Your task to perform on an android device: refresh tabs in the chrome app Image 0: 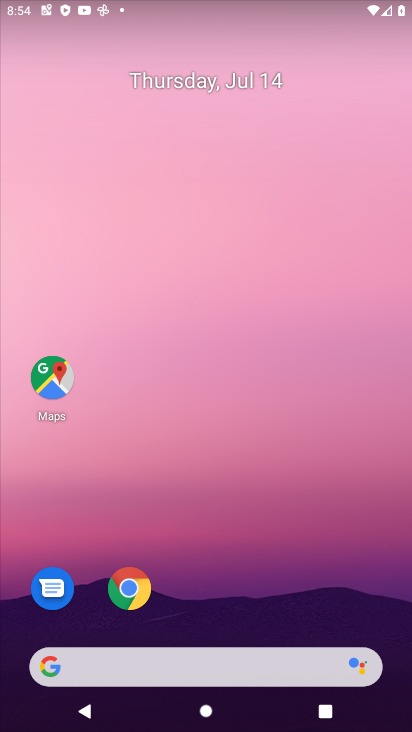
Step 0: click (130, 590)
Your task to perform on an android device: refresh tabs in the chrome app Image 1: 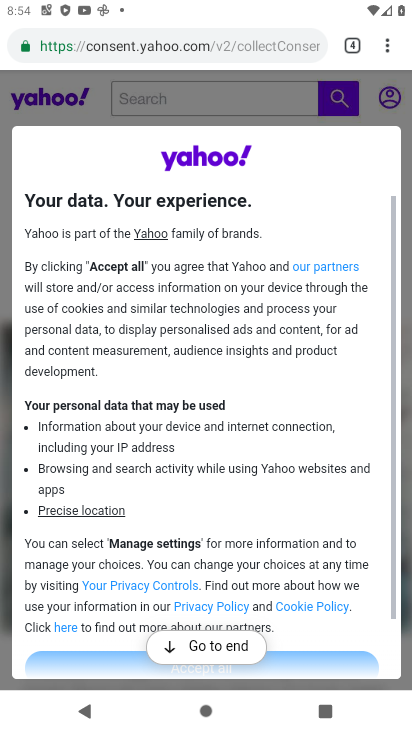
Step 1: click (380, 53)
Your task to perform on an android device: refresh tabs in the chrome app Image 2: 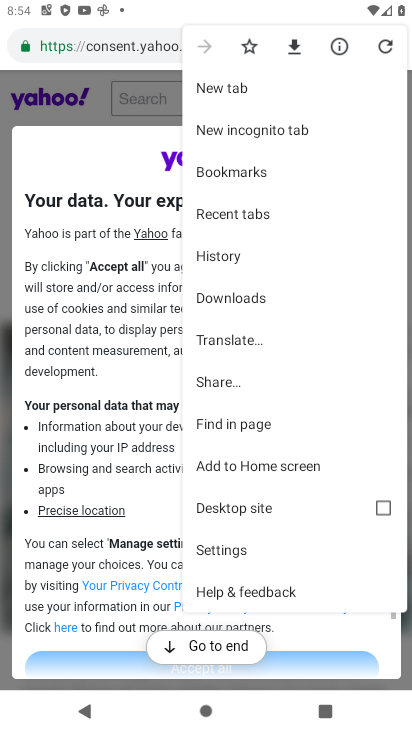
Step 2: click (383, 44)
Your task to perform on an android device: refresh tabs in the chrome app Image 3: 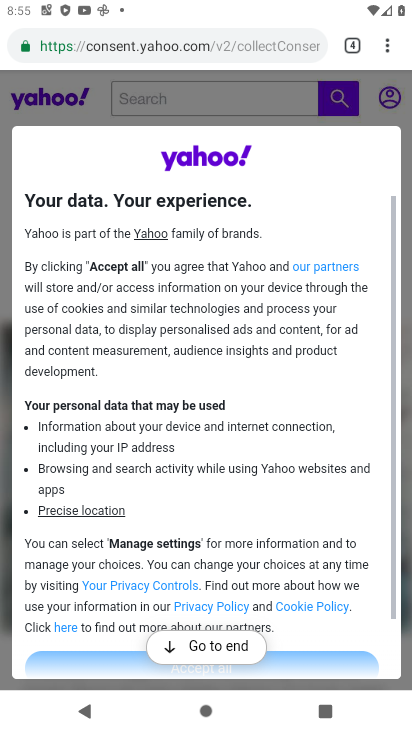
Step 3: task complete